Your task to perform on an android device: Go to Wikipedia Image 0: 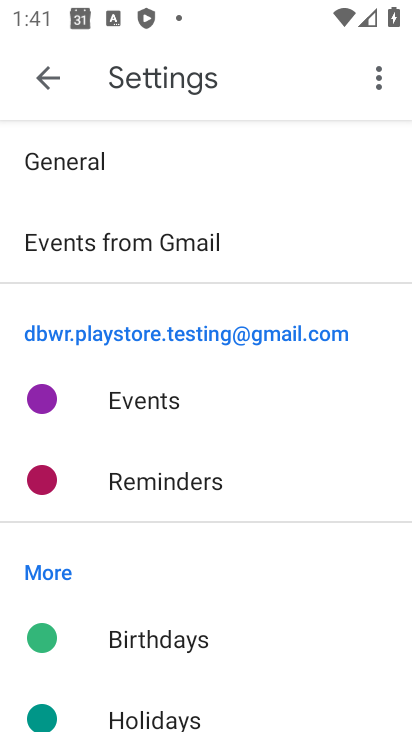
Step 0: press home button
Your task to perform on an android device: Go to Wikipedia Image 1: 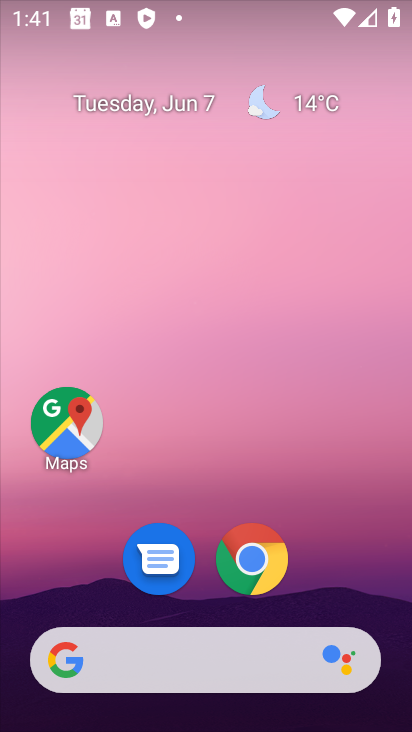
Step 1: click (249, 578)
Your task to perform on an android device: Go to Wikipedia Image 2: 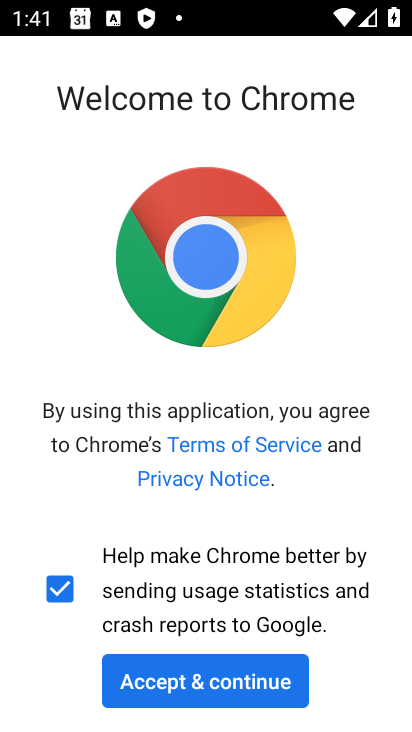
Step 2: click (196, 679)
Your task to perform on an android device: Go to Wikipedia Image 3: 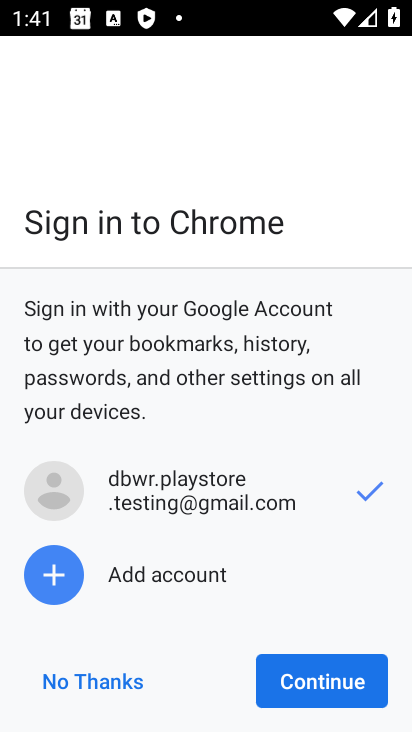
Step 3: click (93, 683)
Your task to perform on an android device: Go to Wikipedia Image 4: 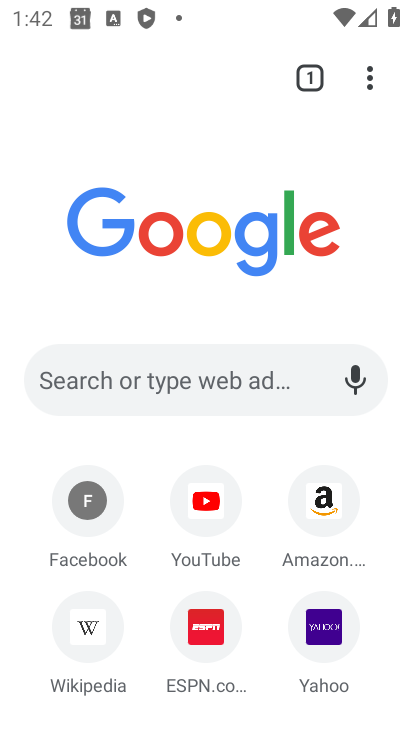
Step 4: click (100, 644)
Your task to perform on an android device: Go to Wikipedia Image 5: 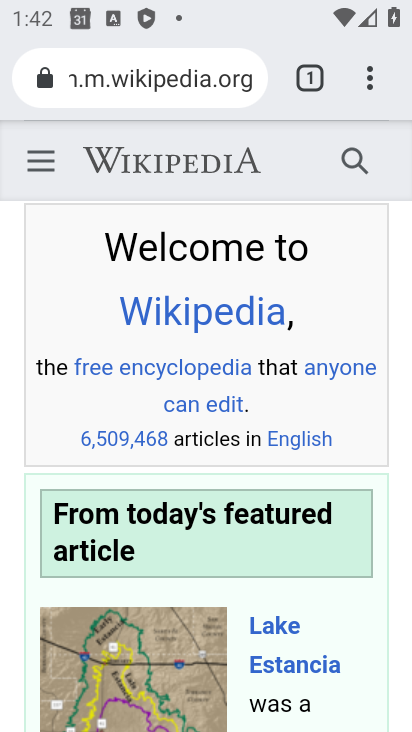
Step 5: task complete